Your task to perform on an android device: turn off location history Image 0: 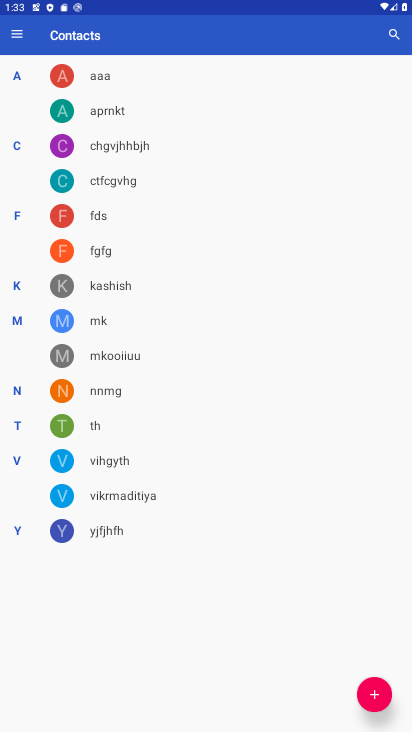
Step 0: press home button
Your task to perform on an android device: turn off location history Image 1: 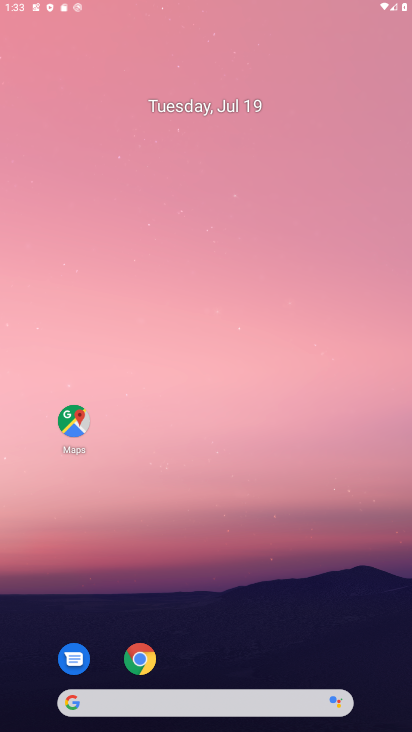
Step 1: drag from (243, 618) to (147, 53)
Your task to perform on an android device: turn off location history Image 2: 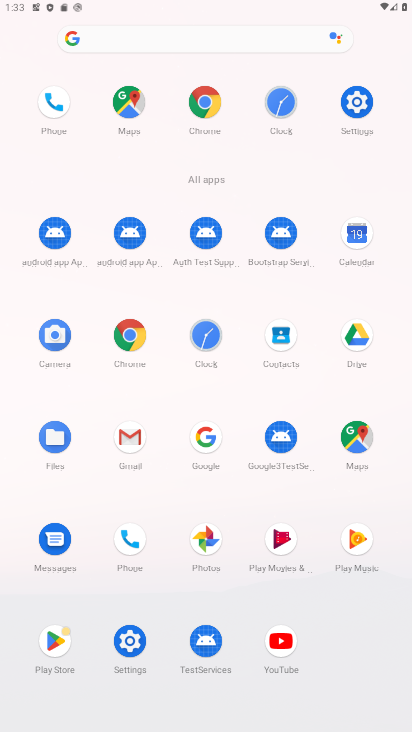
Step 2: click (346, 449)
Your task to perform on an android device: turn off location history Image 3: 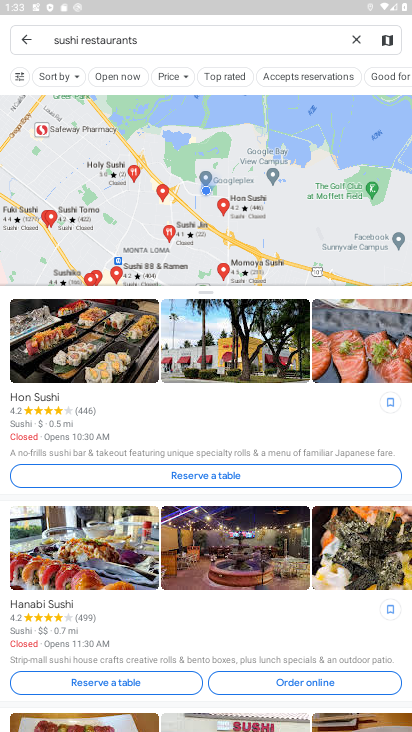
Step 3: click (24, 34)
Your task to perform on an android device: turn off location history Image 4: 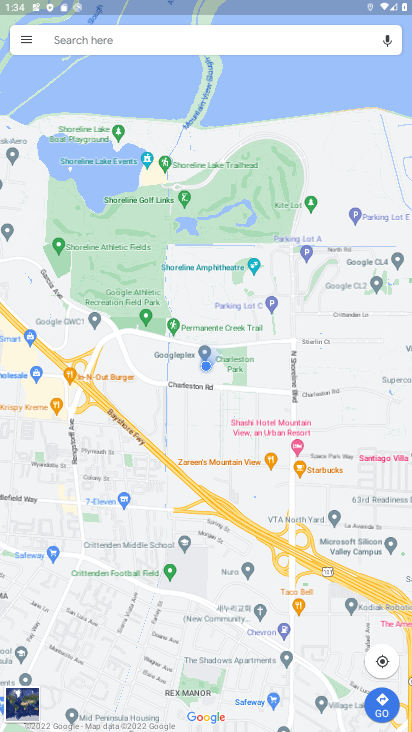
Step 4: click (28, 39)
Your task to perform on an android device: turn off location history Image 5: 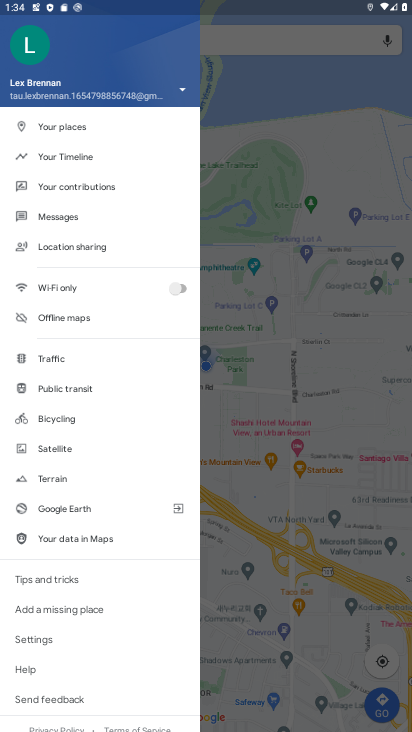
Step 5: click (79, 160)
Your task to perform on an android device: turn off location history Image 6: 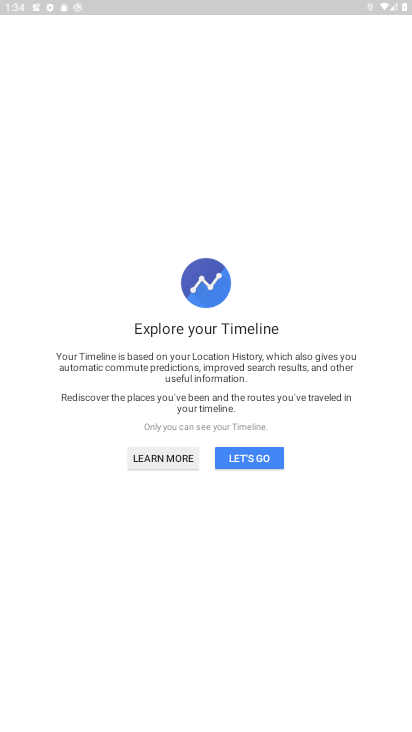
Step 6: click (224, 463)
Your task to perform on an android device: turn off location history Image 7: 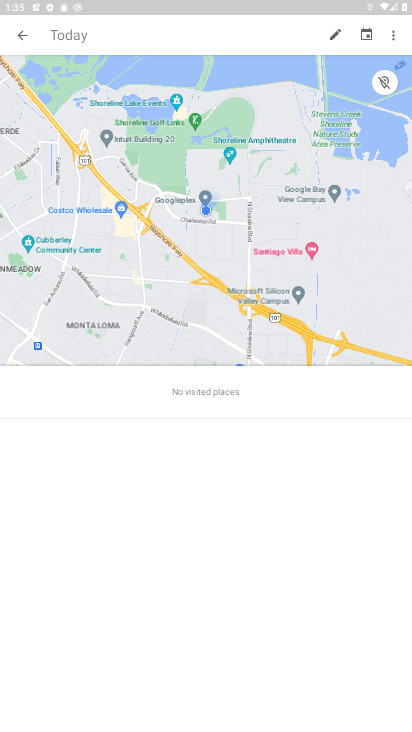
Step 7: click (392, 33)
Your task to perform on an android device: turn off location history Image 8: 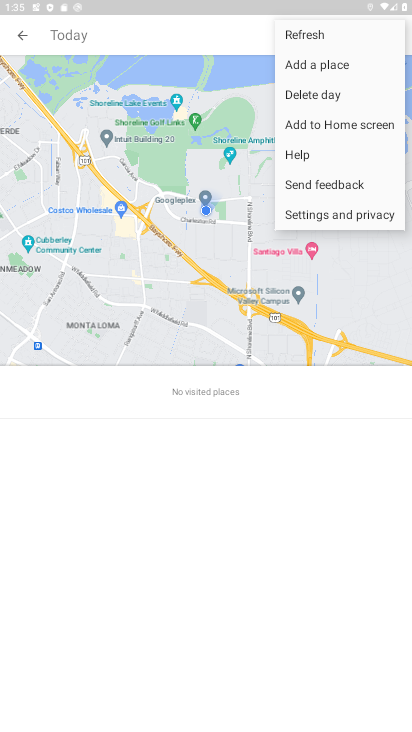
Step 8: click (298, 215)
Your task to perform on an android device: turn off location history Image 9: 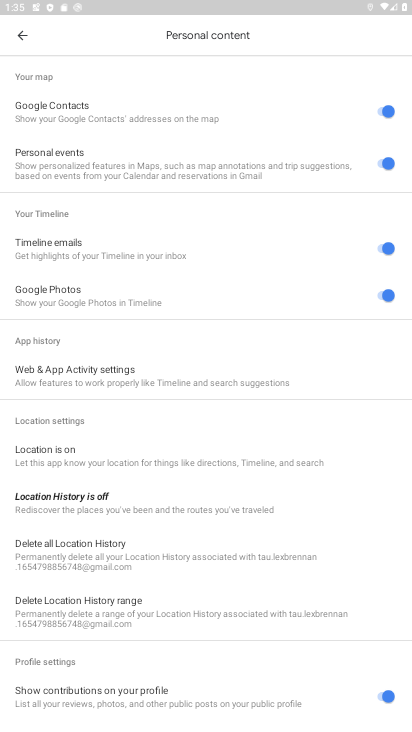
Step 9: click (123, 491)
Your task to perform on an android device: turn off location history Image 10: 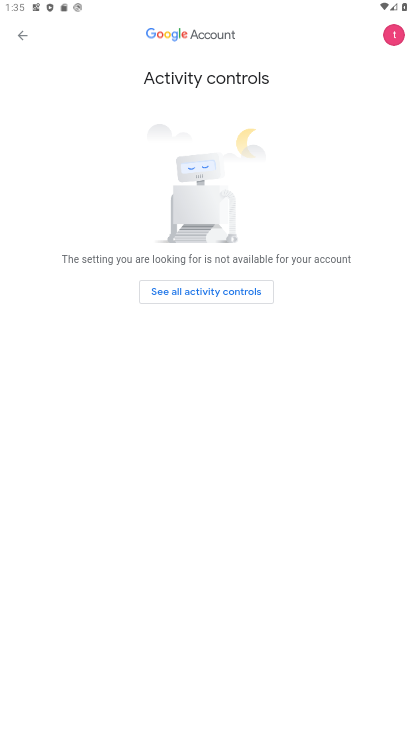
Step 10: click (176, 300)
Your task to perform on an android device: turn off location history Image 11: 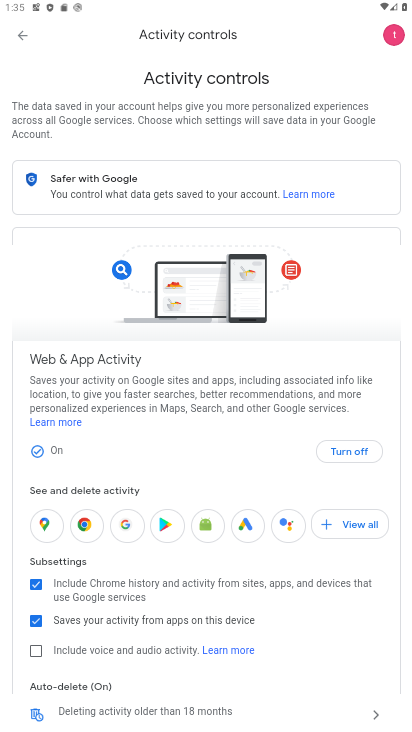
Step 11: click (362, 451)
Your task to perform on an android device: turn off location history Image 12: 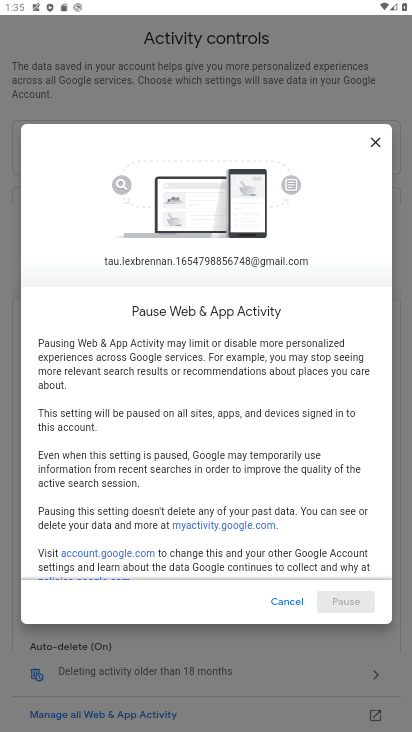
Step 12: drag from (315, 563) to (265, 303)
Your task to perform on an android device: turn off location history Image 13: 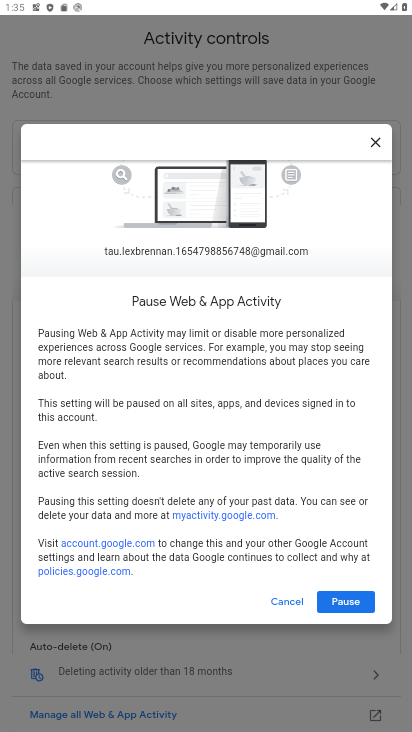
Step 13: click (339, 603)
Your task to perform on an android device: turn off location history Image 14: 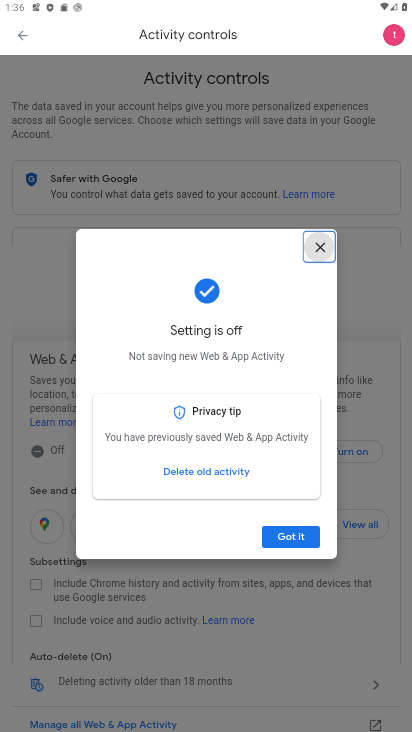
Step 14: click (280, 534)
Your task to perform on an android device: turn off location history Image 15: 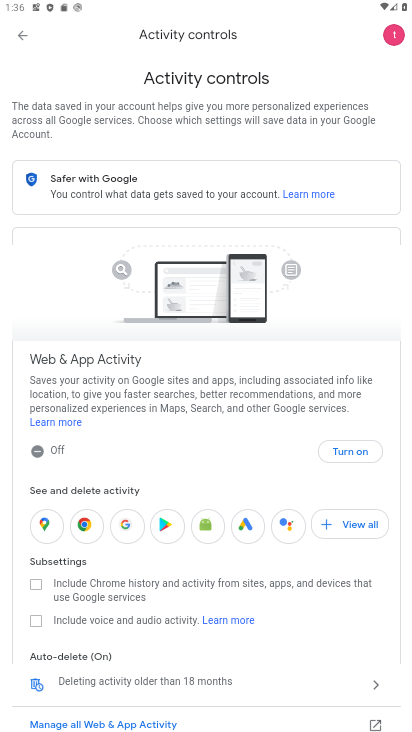
Step 15: task complete